Your task to perform on an android device: turn on priority inbox in the gmail app Image 0: 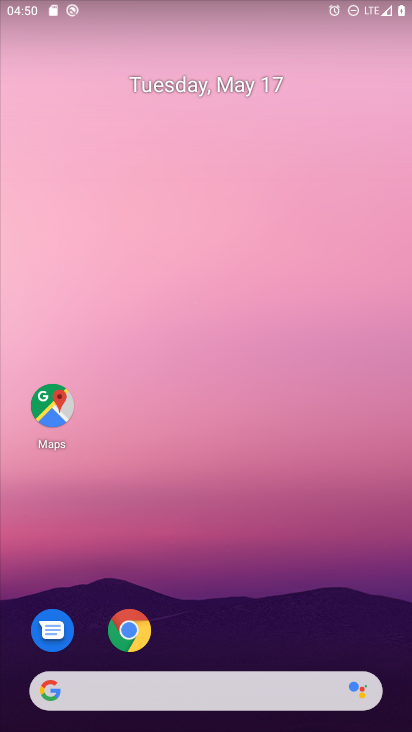
Step 0: drag from (196, 620) to (228, 85)
Your task to perform on an android device: turn on priority inbox in the gmail app Image 1: 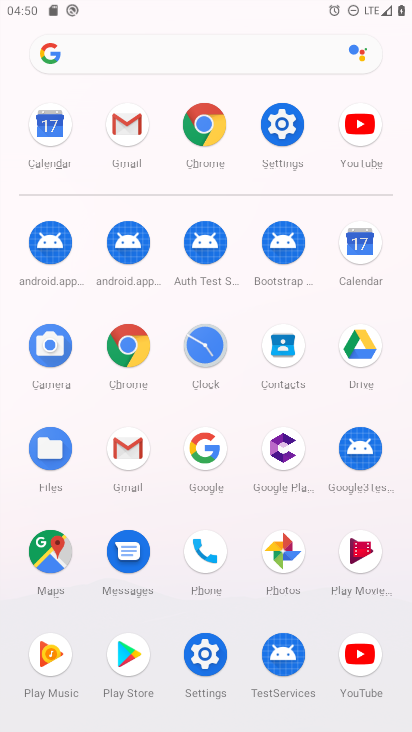
Step 1: click (126, 131)
Your task to perform on an android device: turn on priority inbox in the gmail app Image 2: 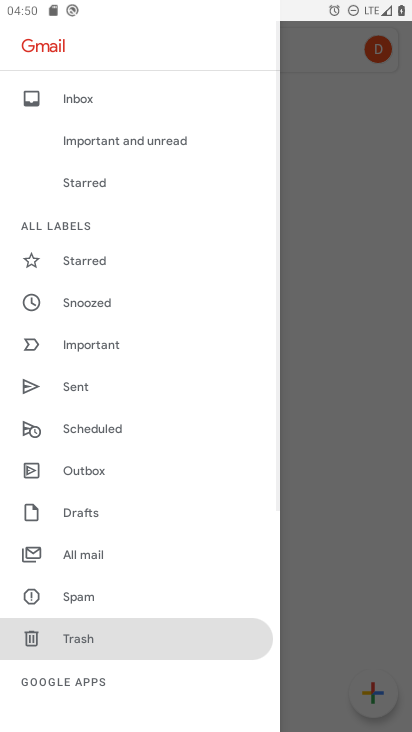
Step 2: drag from (69, 642) to (173, 32)
Your task to perform on an android device: turn on priority inbox in the gmail app Image 3: 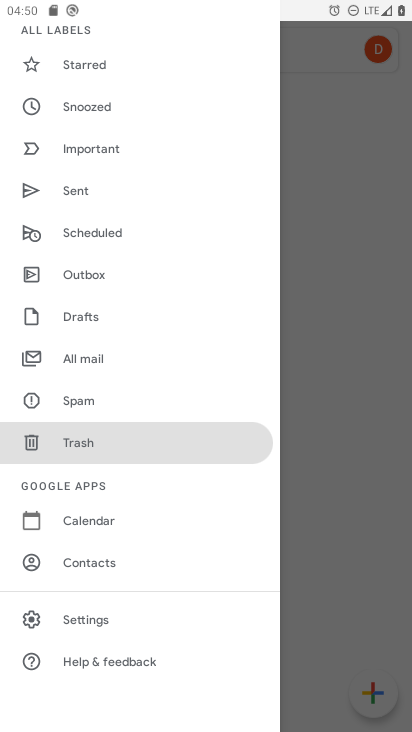
Step 3: click (74, 617)
Your task to perform on an android device: turn on priority inbox in the gmail app Image 4: 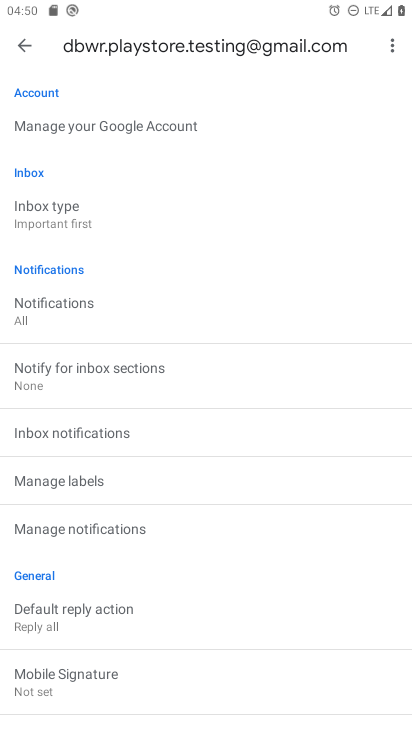
Step 4: click (90, 221)
Your task to perform on an android device: turn on priority inbox in the gmail app Image 5: 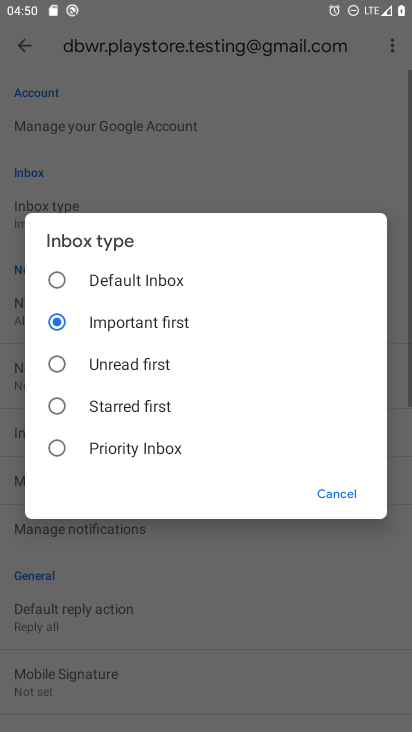
Step 5: click (54, 444)
Your task to perform on an android device: turn on priority inbox in the gmail app Image 6: 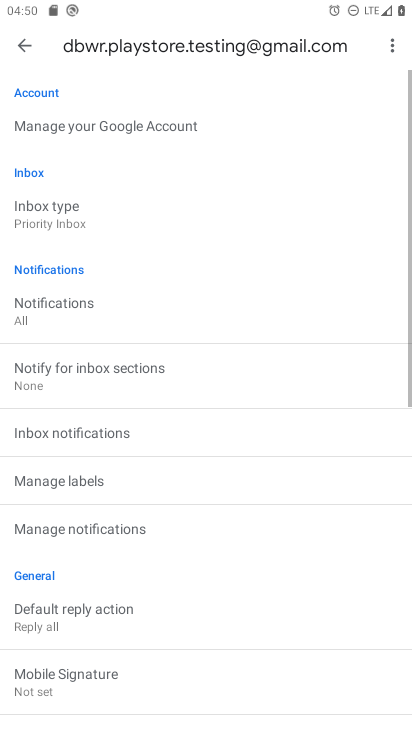
Step 6: task complete